Your task to perform on an android device: allow cookies in the chrome app Image 0: 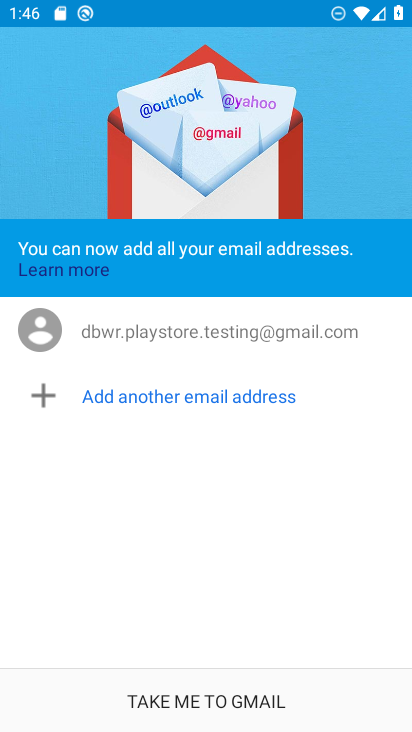
Step 0: press home button
Your task to perform on an android device: allow cookies in the chrome app Image 1: 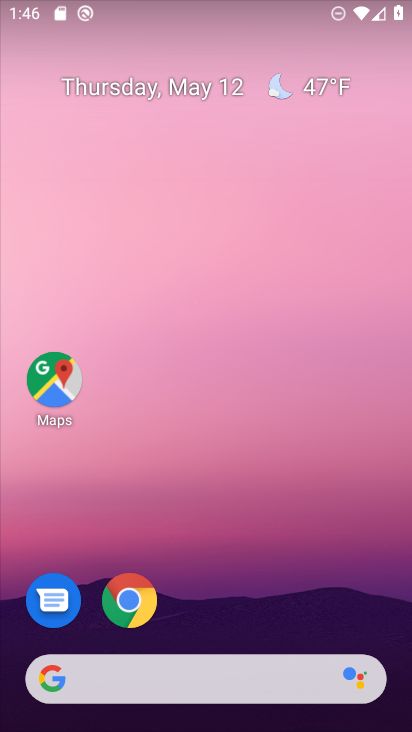
Step 1: click (126, 601)
Your task to perform on an android device: allow cookies in the chrome app Image 2: 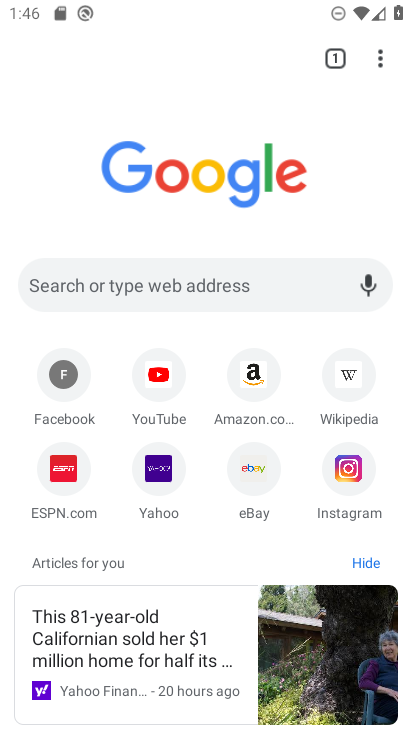
Step 2: click (382, 63)
Your task to perform on an android device: allow cookies in the chrome app Image 3: 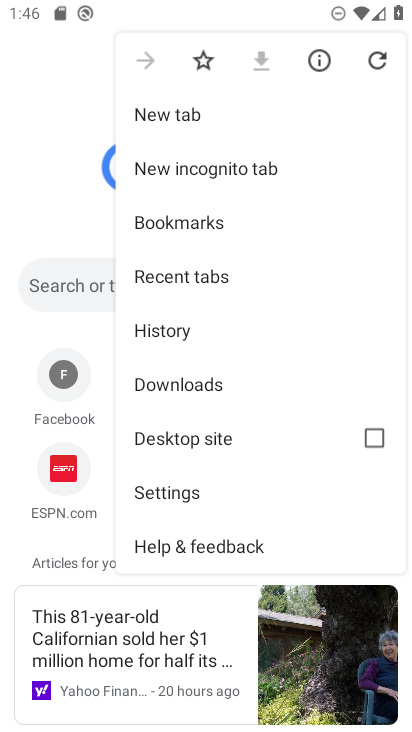
Step 3: click (182, 495)
Your task to perform on an android device: allow cookies in the chrome app Image 4: 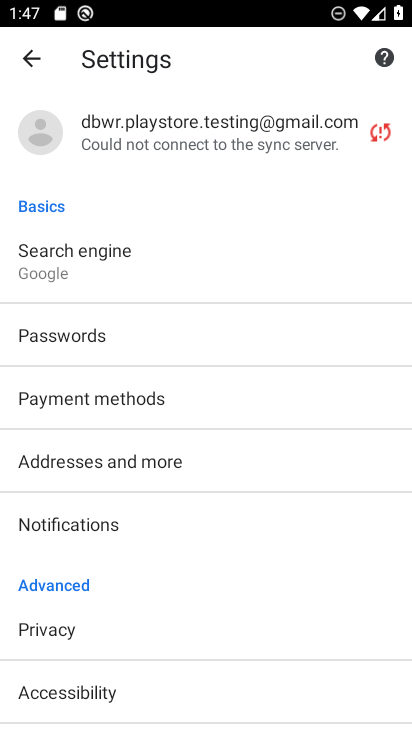
Step 4: drag from (139, 626) to (140, 201)
Your task to perform on an android device: allow cookies in the chrome app Image 5: 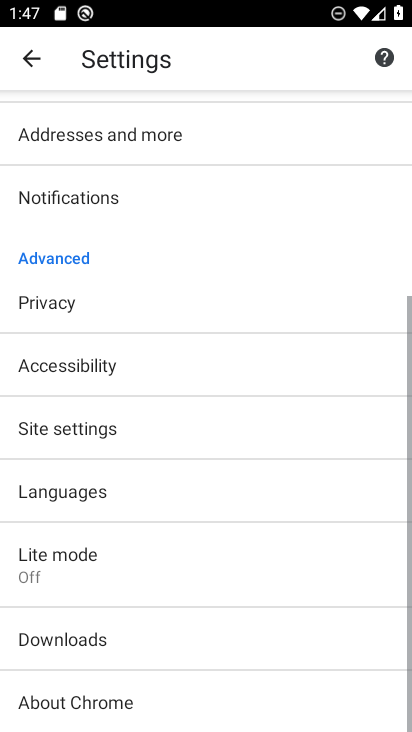
Step 5: click (49, 427)
Your task to perform on an android device: allow cookies in the chrome app Image 6: 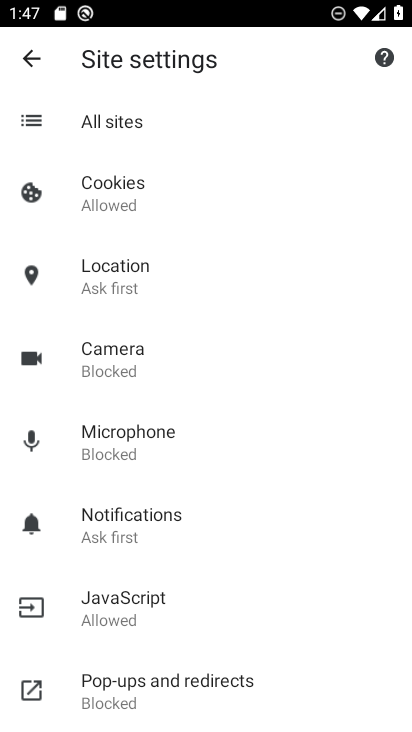
Step 6: click (112, 200)
Your task to perform on an android device: allow cookies in the chrome app Image 7: 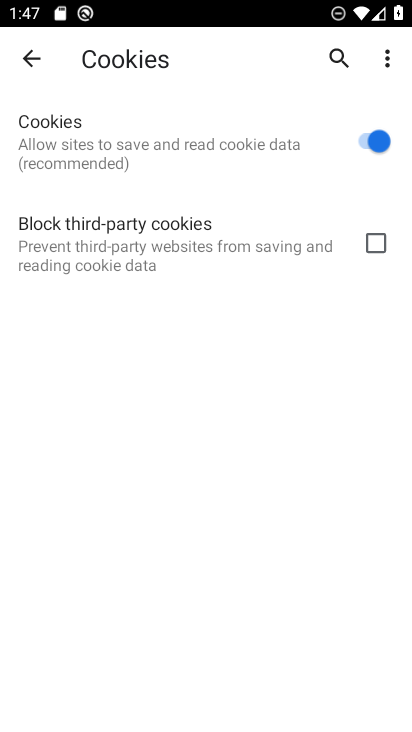
Step 7: task complete